Your task to perform on an android device: Check the news Image 0: 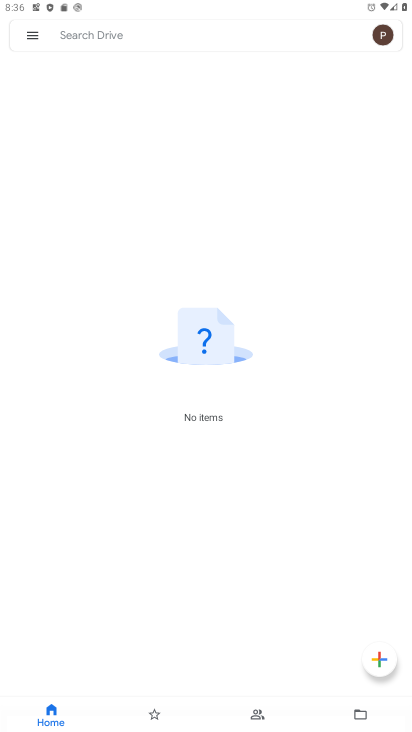
Step 0: press home button
Your task to perform on an android device: Check the news Image 1: 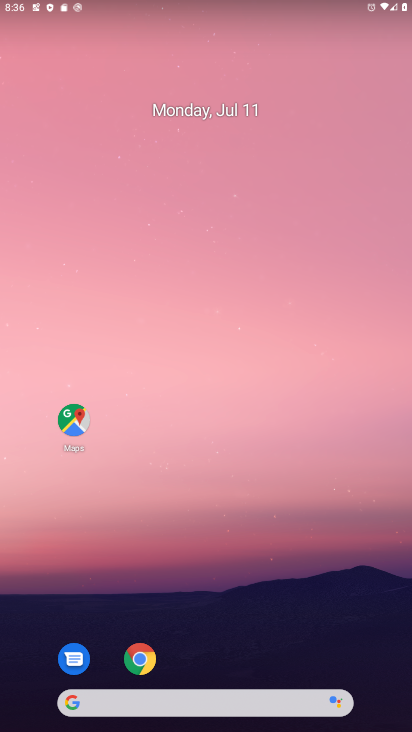
Step 1: task complete